Your task to perform on an android device: Show the shopping cart on bestbuy. Image 0: 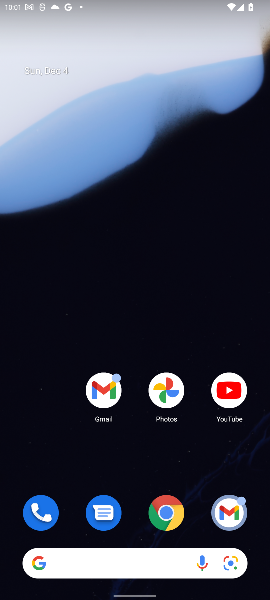
Step 0: click (172, 509)
Your task to perform on an android device: Show the shopping cart on bestbuy. Image 1: 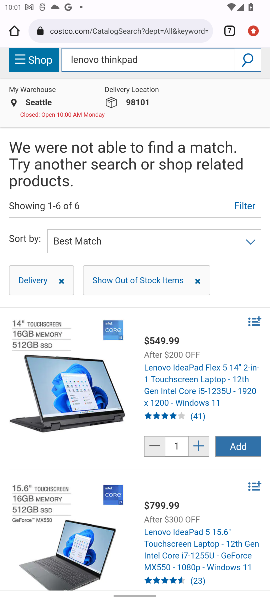
Step 1: click (233, 27)
Your task to perform on an android device: Show the shopping cart on bestbuy. Image 2: 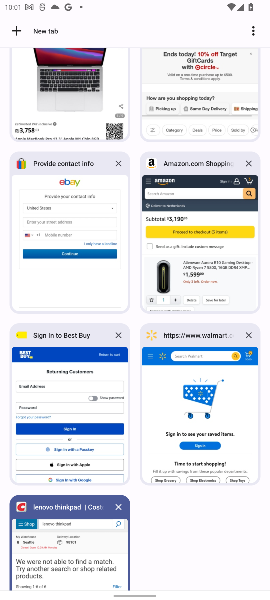
Step 2: click (71, 412)
Your task to perform on an android device: Show the shopping cart on bestbuy. Image 3: 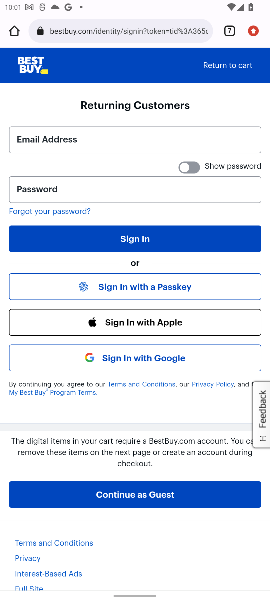
Step 3: click (230, 63)
Your task to perform on an android device: Show the shopping cart on bestbuy. Image 4: 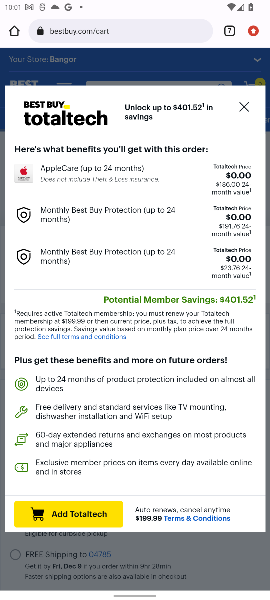
Step 4: click (243, 109)
Your task to perform on an android device: Show the shopping cart on bestbuy. Image 5: 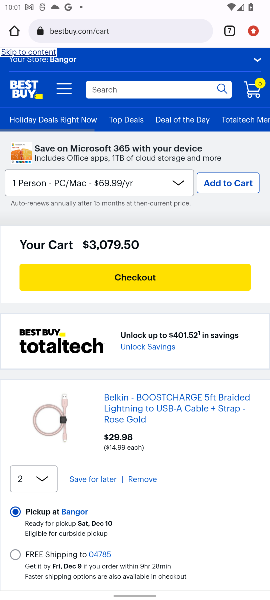
Step 5: task complete